Your task to perform on an android device: open a bookmark in the chrome app Image 0: 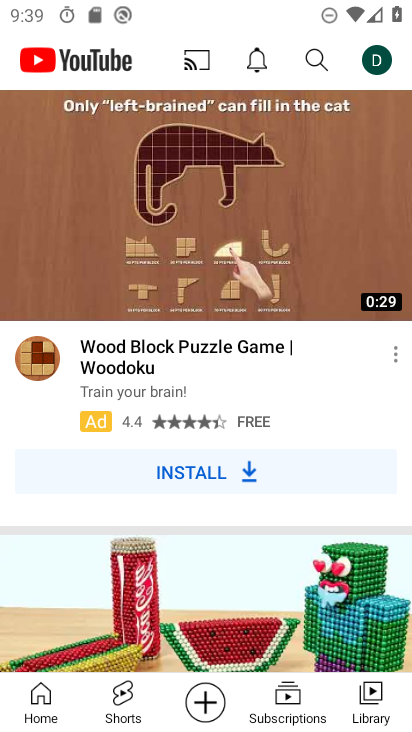
Step 0: press back button
Your task to perform on an android device: open a bookmark in the chrome app Image 1: 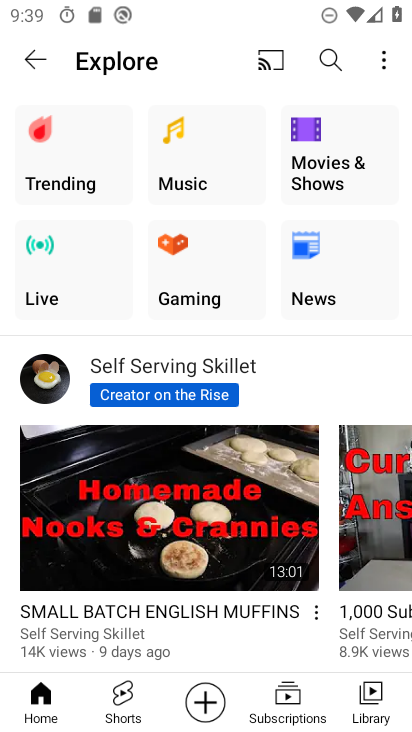
Step 1: press back button
Your task to perform on an android device: open a bookmark in the chrome app Image 2: 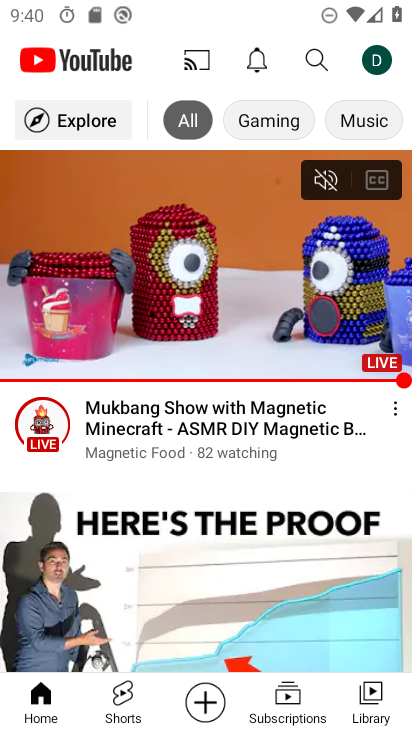
Step 2: press home button
Your task to perform on an android device: open a bookmark in the chrome app Image 3: 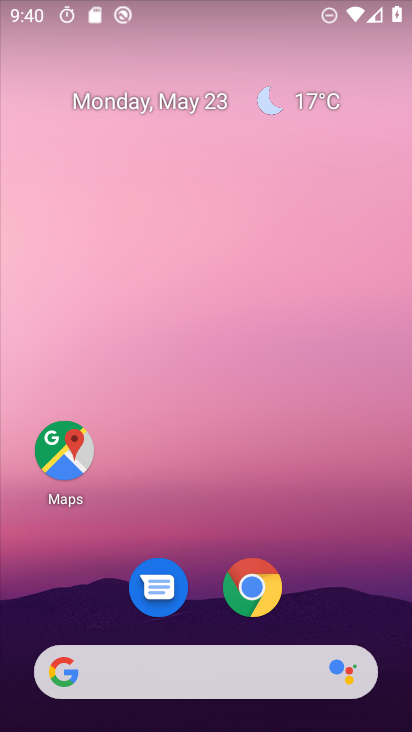
Step 3: click (245, 588)
Your task to perform on an android device: open a bookmark in the chrome app Image 4: 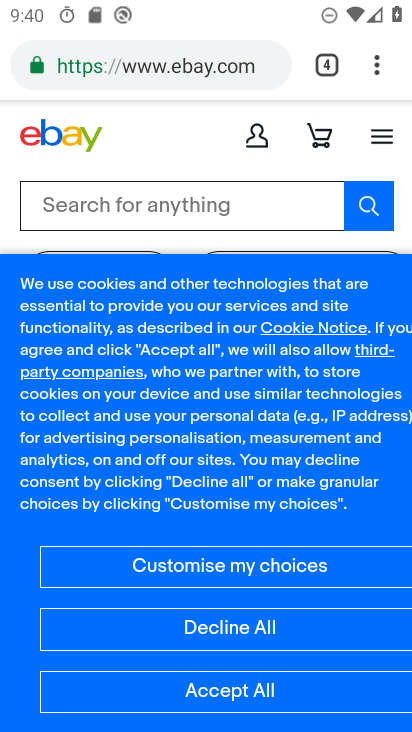
Step 4: drag from (376, 62) to (184, 247)
Your task to perform on an android device: open a bookmark in the chrome app Image 5: 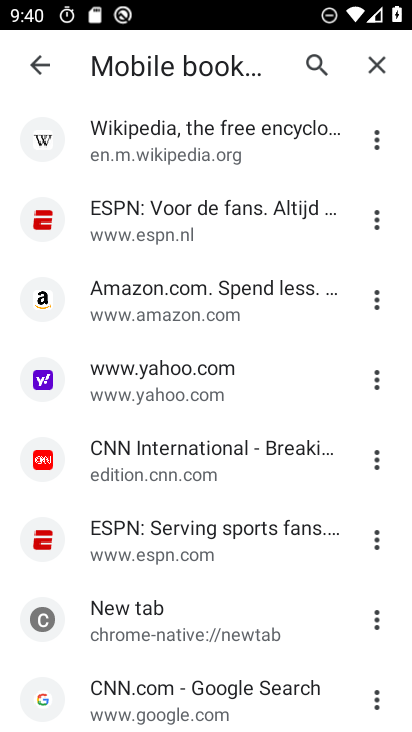
Step 5: click (175, 214)
Your task to perform on an android device: open a bookmark in the chrome app Image 6: 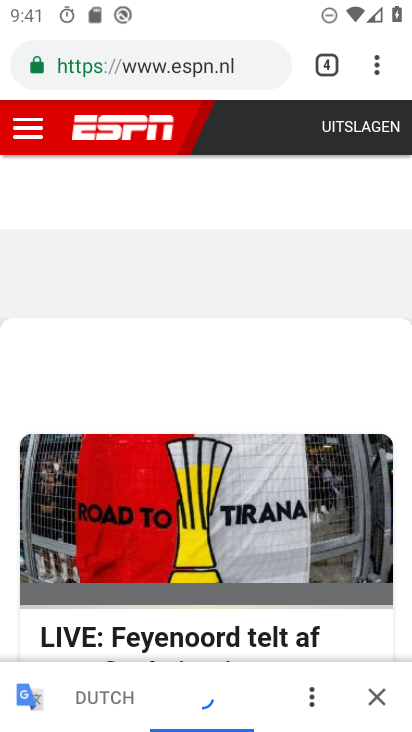
Step 6: task complete